Your task to perform on an android device: turn on showing notifications on the lock screen Image 0: 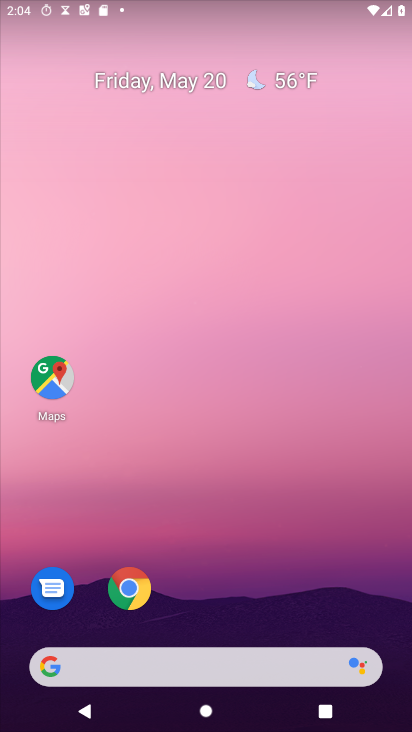
Step 0: drag from (28, 587) to (344, 185)
Your task to perform on an android device: turn on showing notifications on the lock screen Image 1: 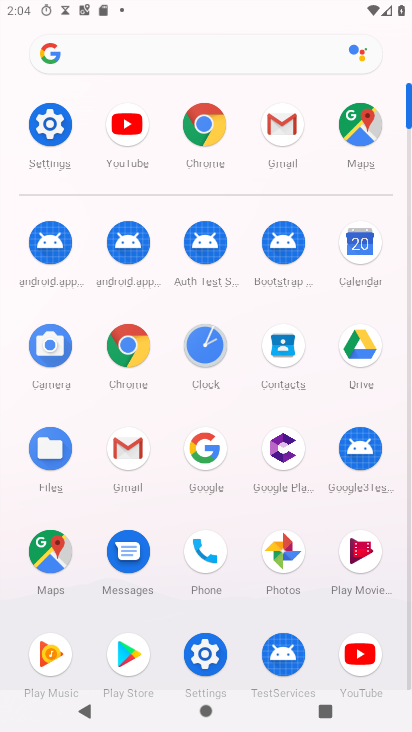
Step 1: click (42, 115)
Your task to perform on an android device: turn on showing notifications on the lock screen Image 2: 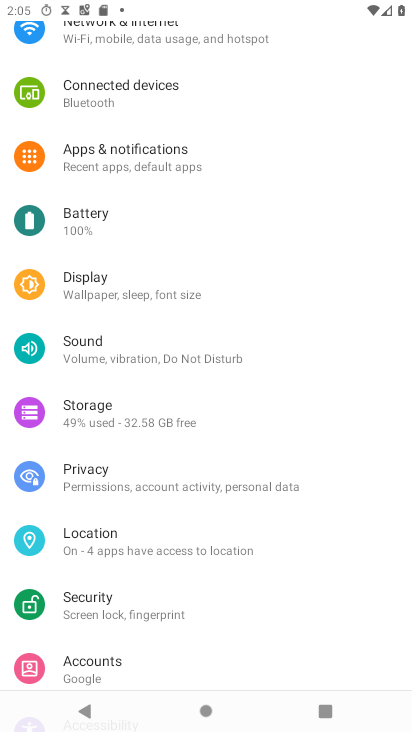
Step 2: click (147, 156)
Your task to perform on an android device: turn on showing notifications on the lock screen Image 3: 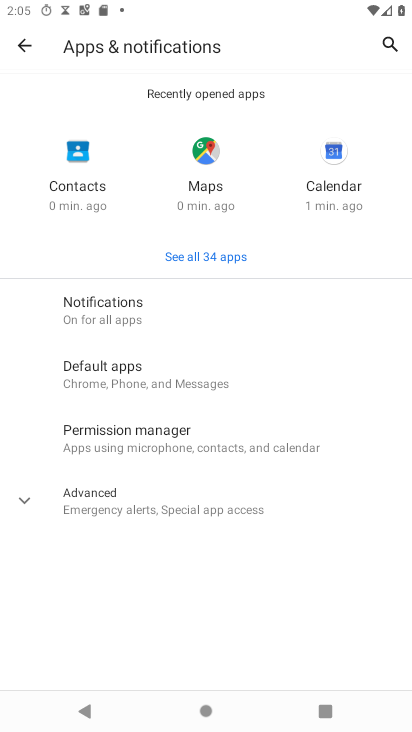
Step 3: click (165, 328)
Your task to perform on an android device: turn on showing notifications on the lock screen Image 4: 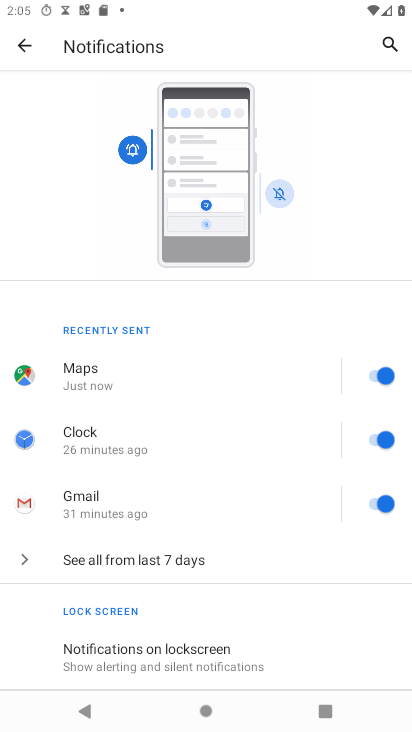
Step 4: drag from (26, 515) to (87, 315)
Your task to perform on an android device: turn on showing notifications on the lock screen Image 5: 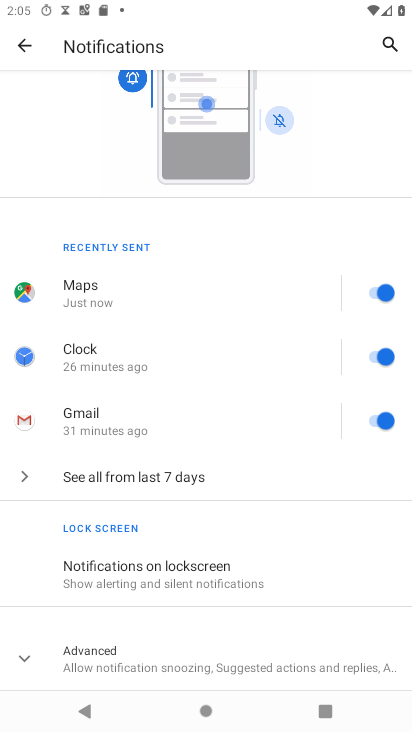
Step 5: click (162, 564)
Your task to perform on an android device: turn on showing notifications on the lock screen Image 6: 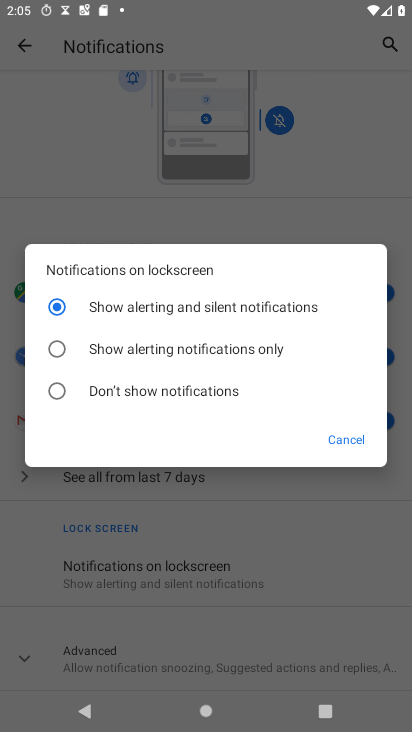
Step 6: task complete